Your task to perform on an android device: Show me popular videos on Youtube Image 0: 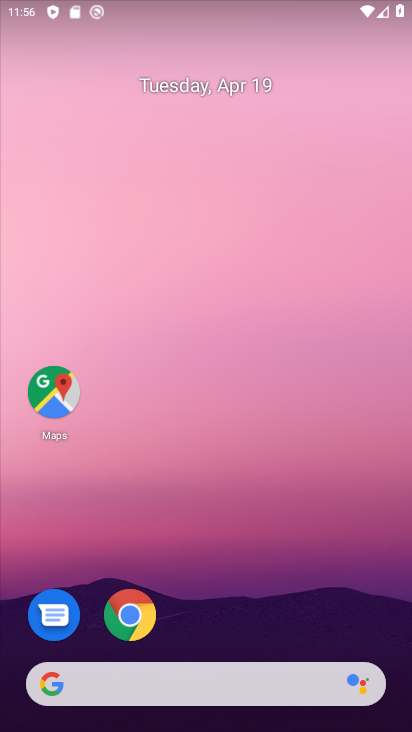
Step 0: drag from (271, 432) to (270, 141)
Your task to perform on an android device: Show me popular videos on Youtube Image 1: 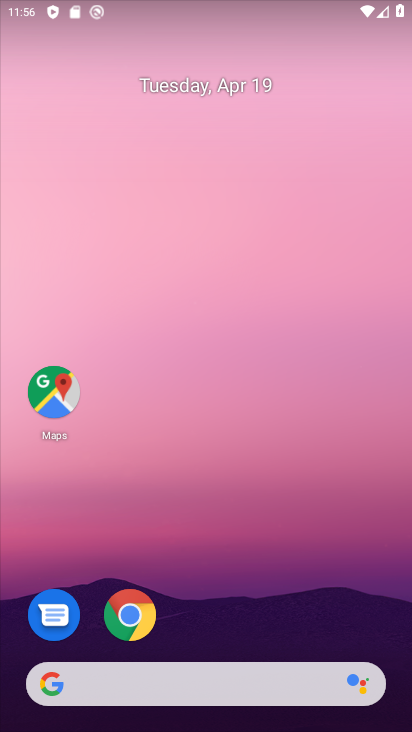
Step 1: drag from (251, 420) to (255, 131)
Your task to perform on an android device: Show me popular videos on Youtube Image 2: 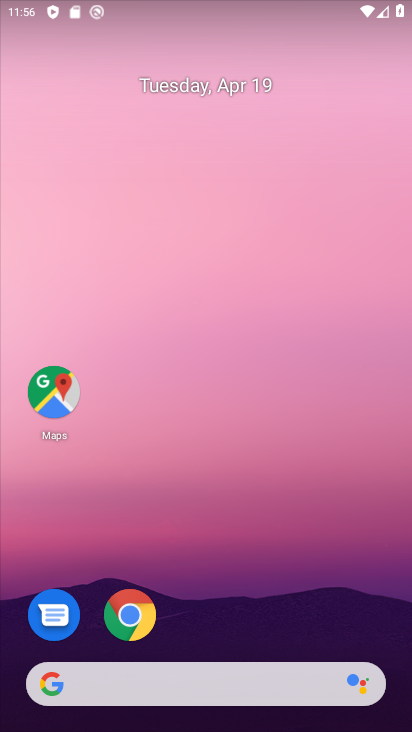
Step 2: drag from (223, 615) to (301, 5)
Your task to perform on an android device: Show me popular videos on Youtube Image 3: 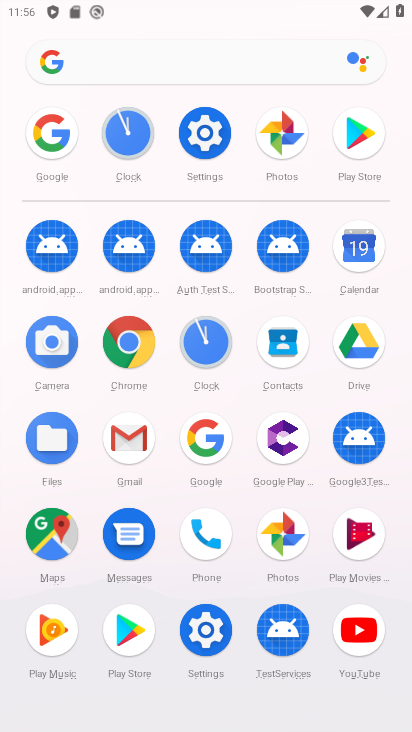
Step 3: click (354, 628)
Your task to perform on an android device: Show me popular videos on Youtube Image 4: 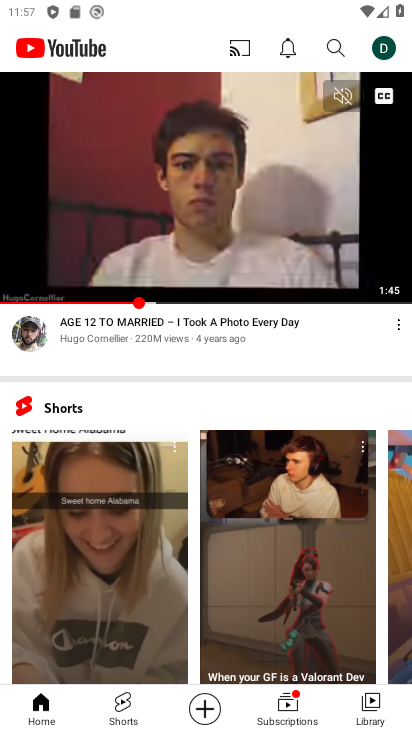
Step 4: task complete